Your task to perform on an android device: change alarm snooze length Image 0: 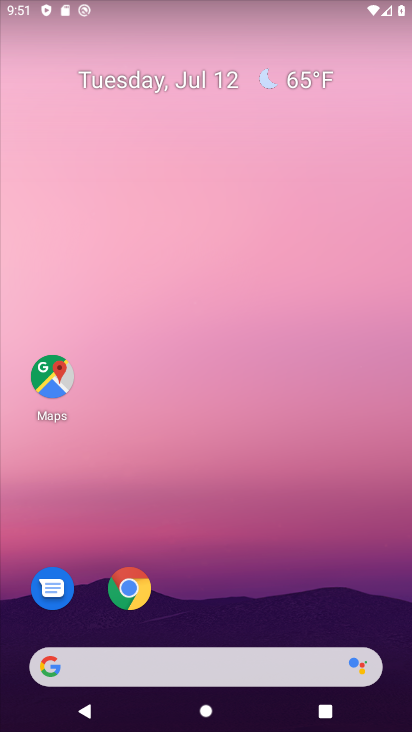
Step 0: drag from (65, 661) to (294, 1)
Your task to perform on an android device: change alarm snooze length Image 1: 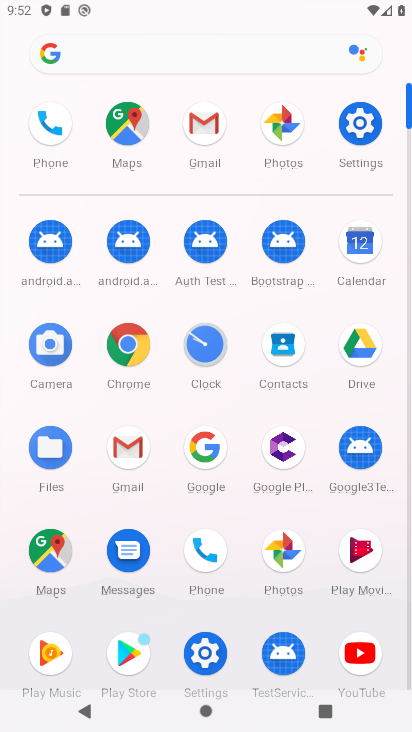
Step 1: click (194, 327)
Your task to perform on an android device: change alarm snooze length Image 2: 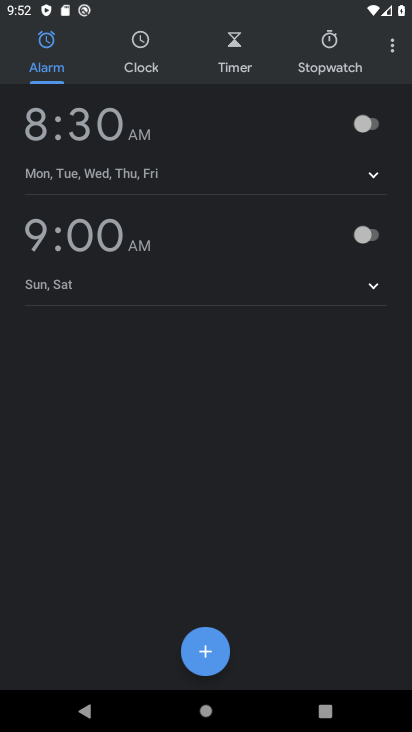
Step 2: click (389, 43)
Your task to perform on an android device: change alarm snooze length Image 3: 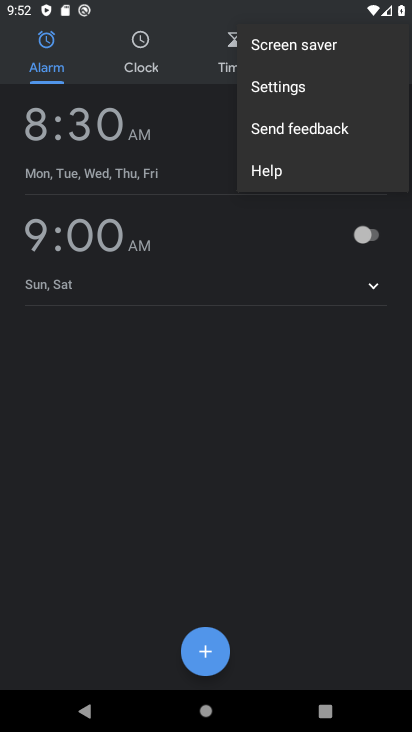
Step 3: click (282, 84)
Your task to perform on an android device: change alarm snooze length Image 4: 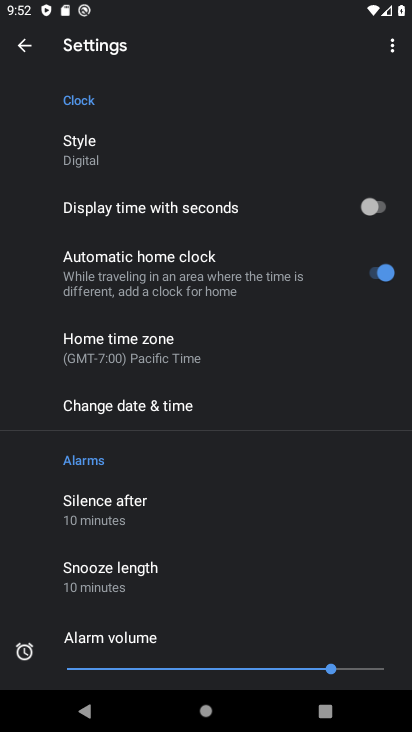
Step 4: click (119, 585)
Your task to perform on an android device: change alarm snooze length Image 5: 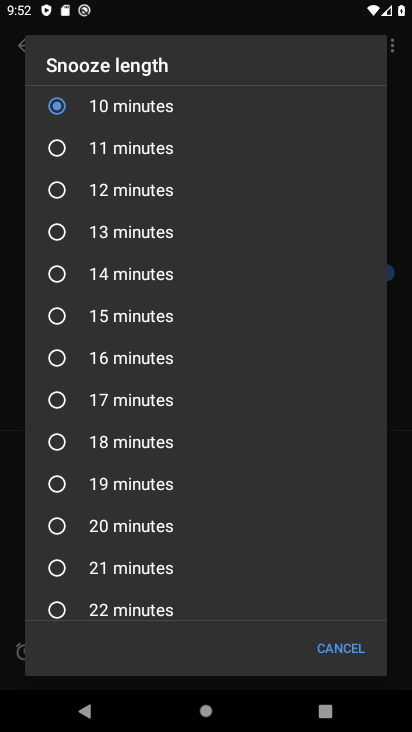
Step 5: click (59, 317)
Your task to perform on an android device: change alarm snooze length Image 6: 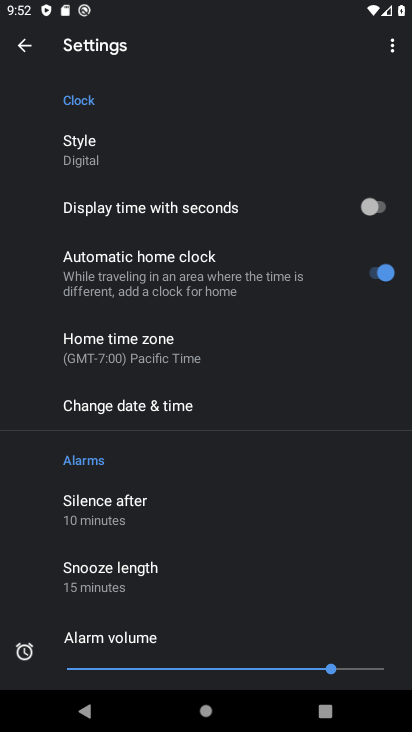
Step 6: task complete